Your task to perform on an android device: Go to sound settings Image 0: 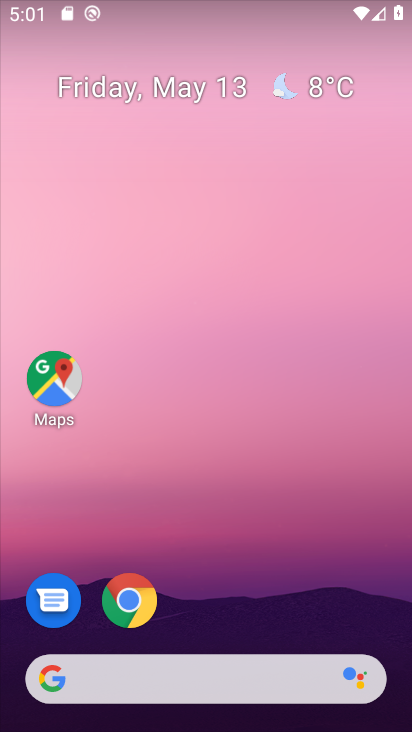
Step 0: drag from (338, 633) to (224, 131)
Your task to perform on an android device: Go to sound settings Image 1: 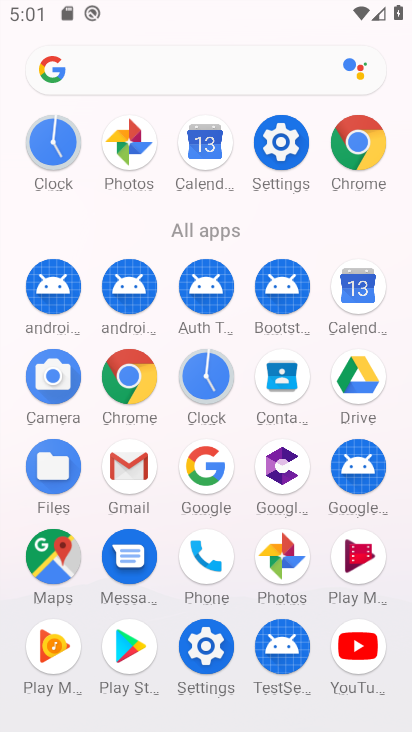
Step 1: click (288, 167)
Your task to perform on an android device: Go to sound settings Image 2: 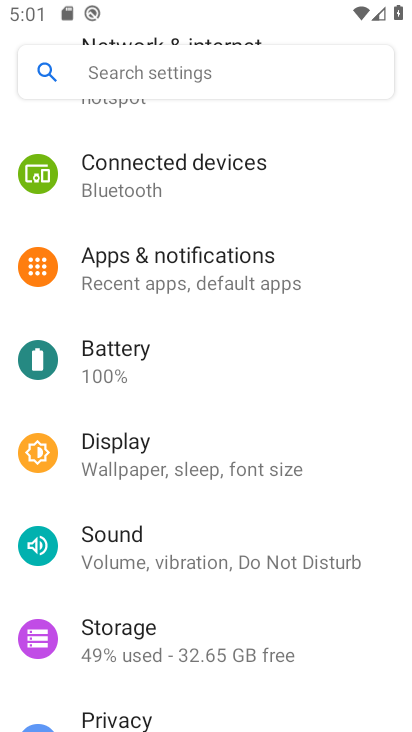
Step 2: click (194, 530)
Your task to perform on an android device: Go to sound settings Image 3: 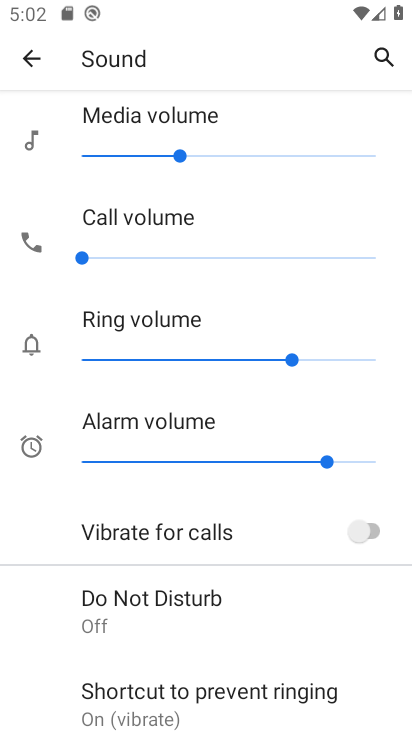
Step 3: task complete